Your task to perform on an android device: turn on priority inbox in the gmail app Image 0: 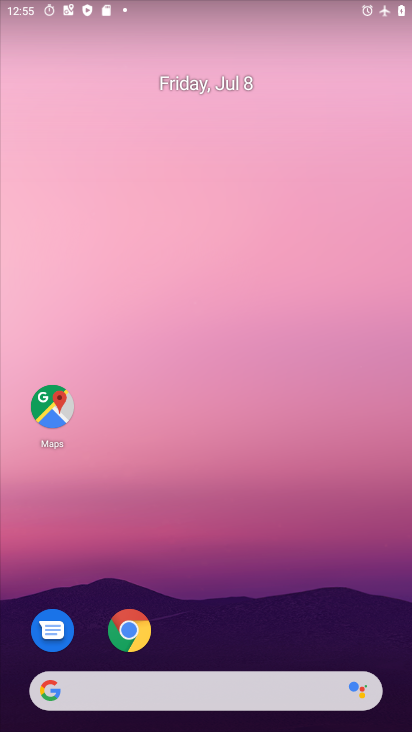
Step 0: drag from (212, 641) to (218, 198)
Your task to perform on an android device: turn on priority inbox in the gmail app Image 1: 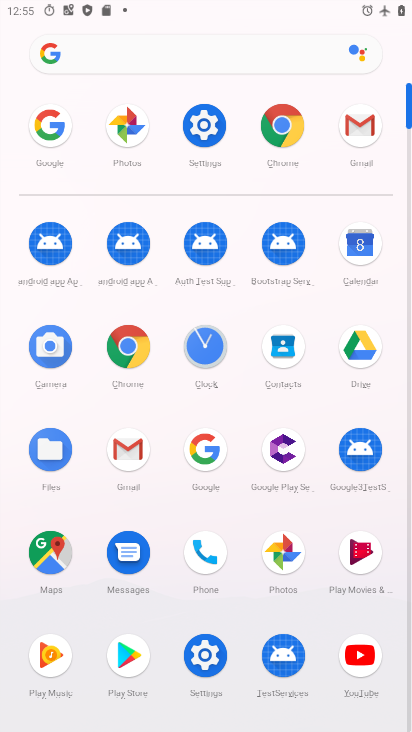
Step 1: click (334, 121)
Your task to perform on an android device: turn on priority inbox in the gmail app Image 2: 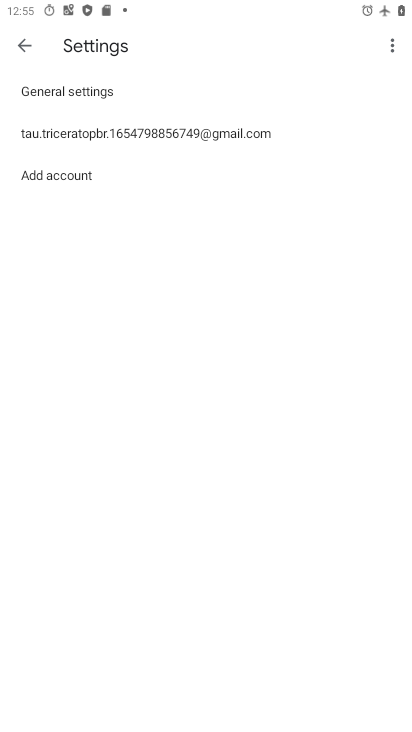
Step 2: click (22, 46)
Your task to perform on an android device: turn on priority inbox in the gmail app Image 3: 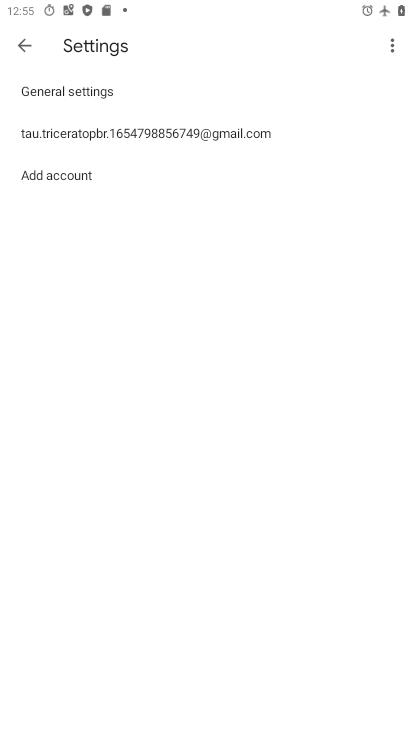
Step 3: click (22, 46)
Your task to perform on an android device: turn on priority inbox in the gmail app Image 4: 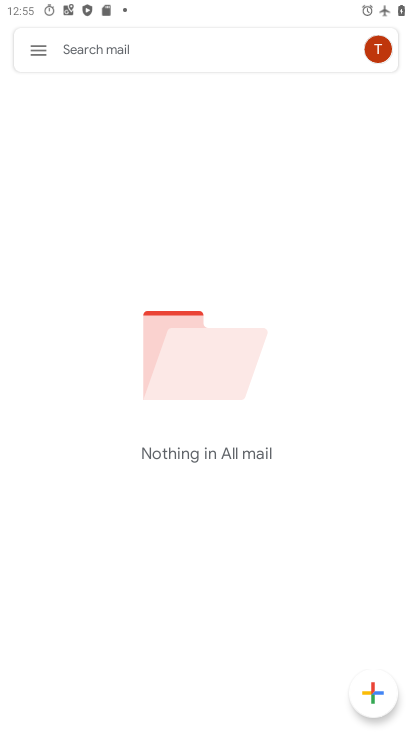
Step 4: click (36, 50)
Your task to perform on an android device: turn on priority inbox in the gmail app Image 5: 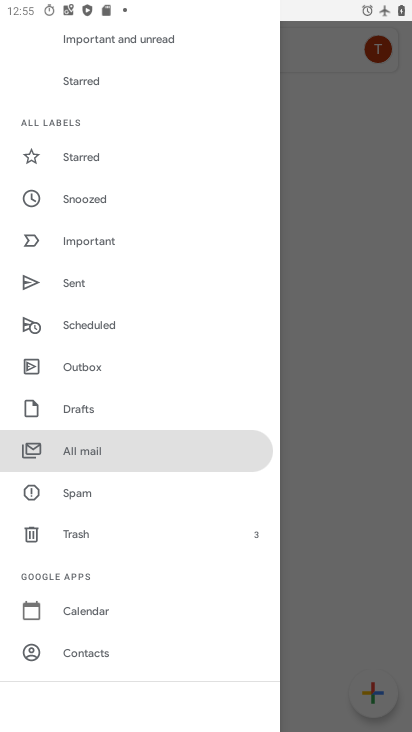
Step 5: drag from (100, 619) to (114, 261)
Your task to perform on an android device: turn on priority inbox in the gmail app Image 6: 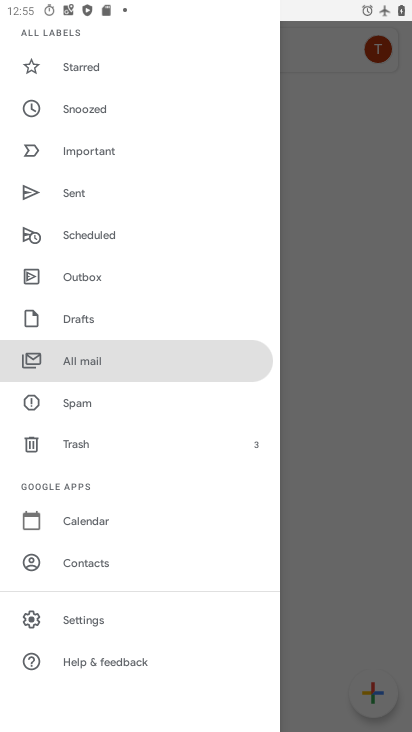
Step 6: click (95, 631)
Your task to perform on an android device: turn on priority inbox in the gmail app Image 7: 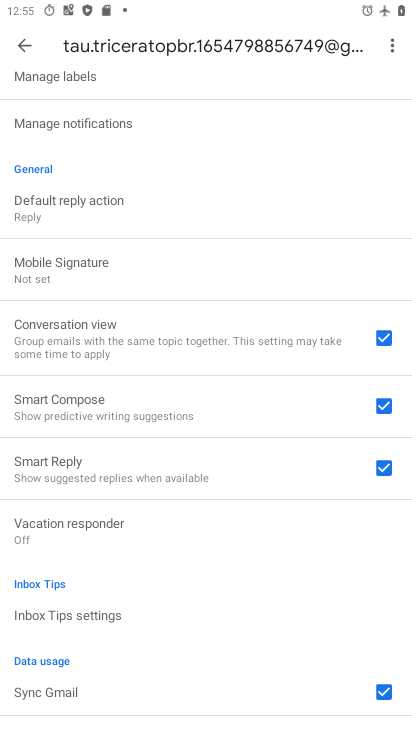
Step 7: drag from (111, 199) to (130, 554)
Your task to perform on an android device: turn on priority inbox in the gmail app Image 8: 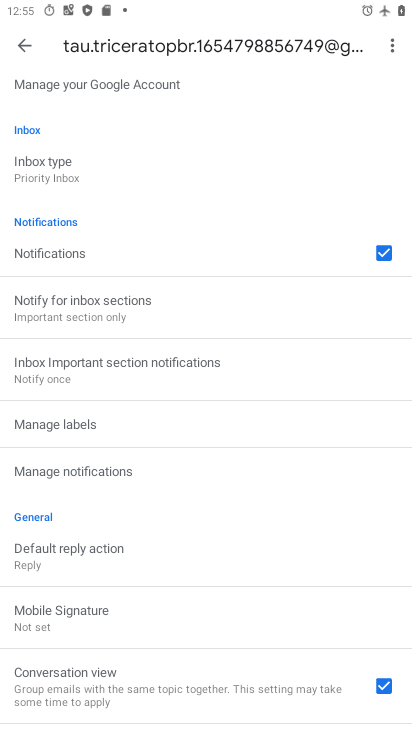
Step 8: drag from (113, 217) to (131, 467)
Your task to perform on an android device: turn on priority inbox in the gmail app Image 9: 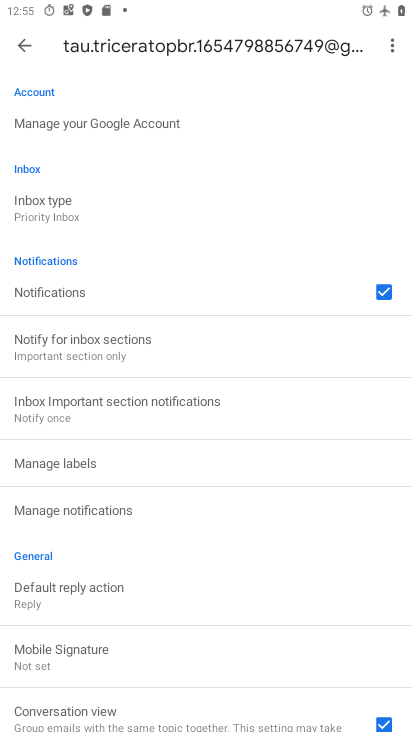
Step 9: click (74, 220)
Your task to perform on an android device: turn on priority inbox in the gmail app Image 10: 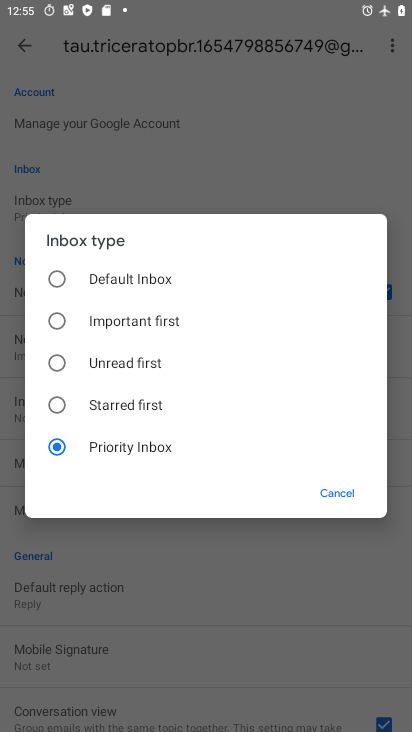
Step 10: task complete